Your task to perform on an android device: Open the map Image 0: 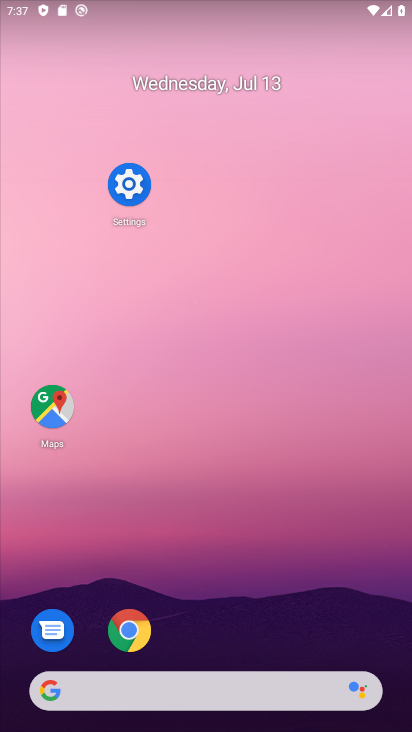
Step 0: click (44, 410)
Your task to perform on an android device: Open the map Image 1: 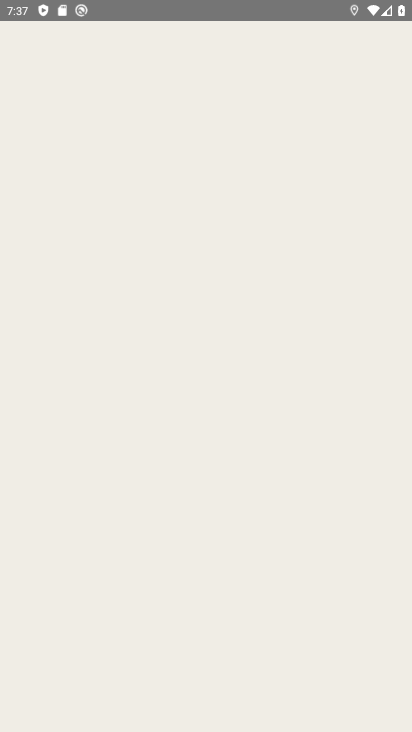
Step 1: task complete